Your task to perform on an android device: add a contact Image 0: 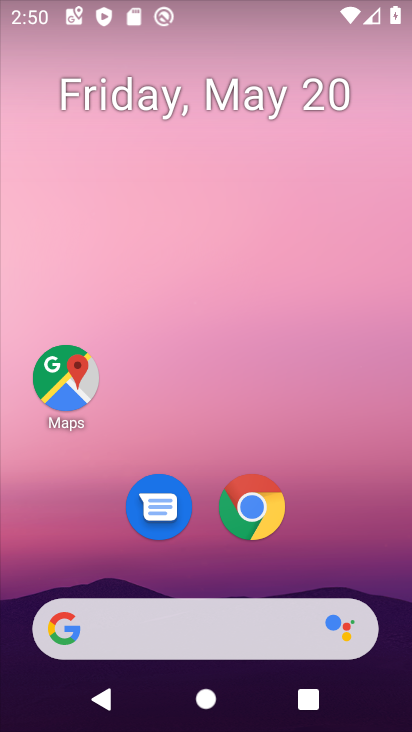
Step 0: drag from (227, 725) to (267, 165)
Your task to perform on an android device: add a contact Image 1: 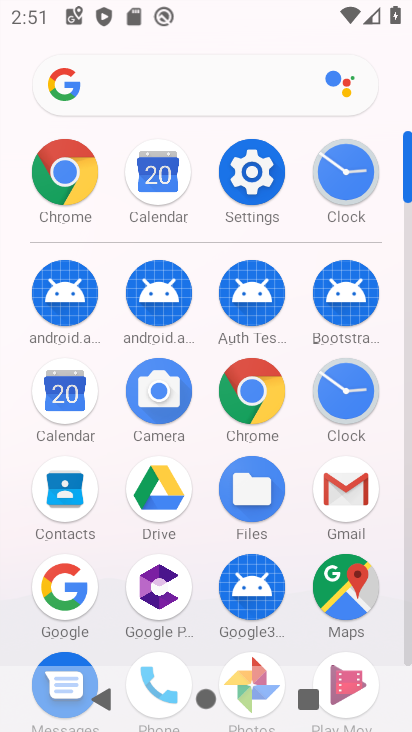
Step 1: click (68, 498)
Your task to perform on an android device: add a contact Image 2: 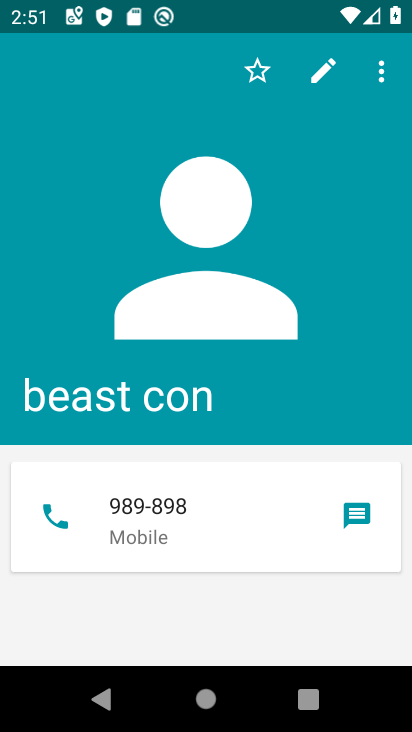
Step 2: press back button
Your task to perform on an android device: add a contact Image 3: 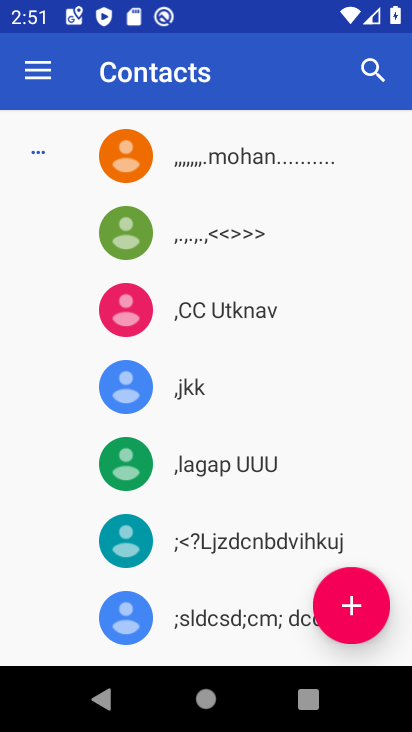
Step 3: click (364, 599)
Your task to perform on an android device: add a contact Image 4: 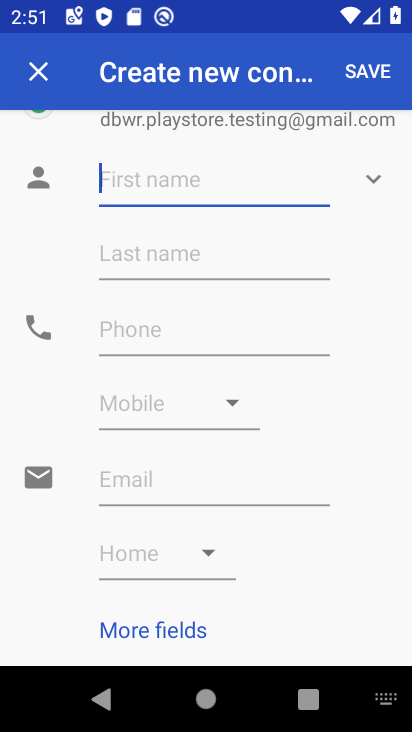
Step 4: type "mmm"
Your task to perform on an android device: add a contact Image 5: 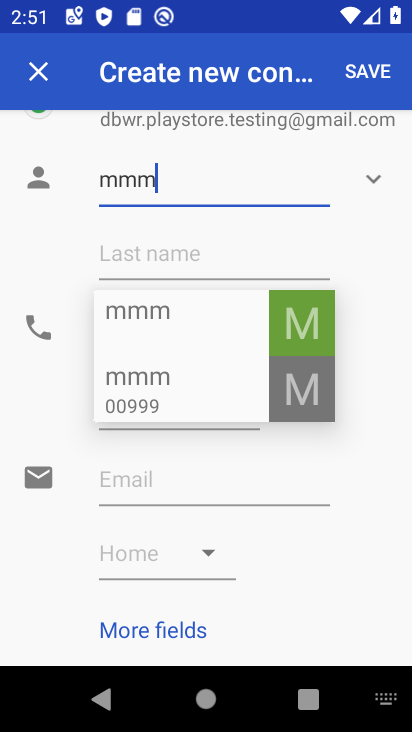
Step 5: type "ccccc"
Your task to perform on an android device: add a contact Image 6: 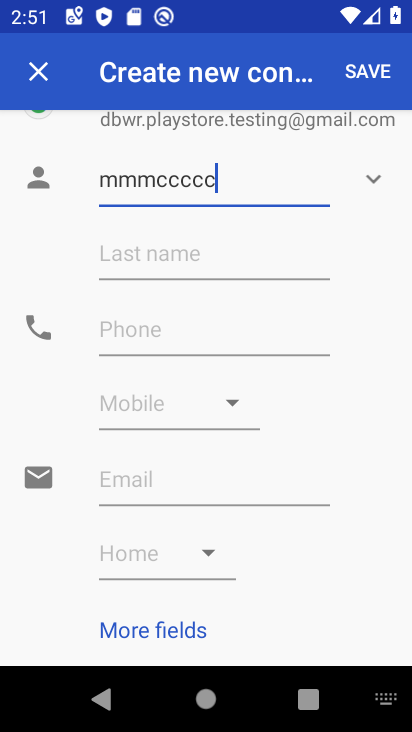
Step 6: click (174, 324)
Your task to perform on an android device: add a contact Image 7: 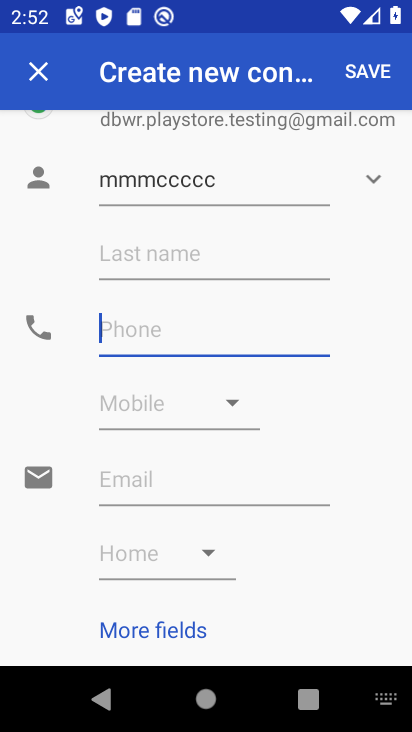
Step 7: type "9999765"
Your task to perform on an android device: add a contact Image 8: 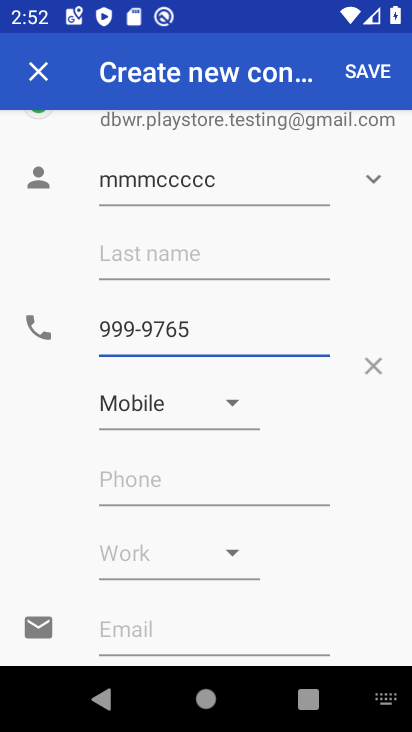
Step 8: click (371, 72)
Your task to perform on an android device: add a contact Image 9: 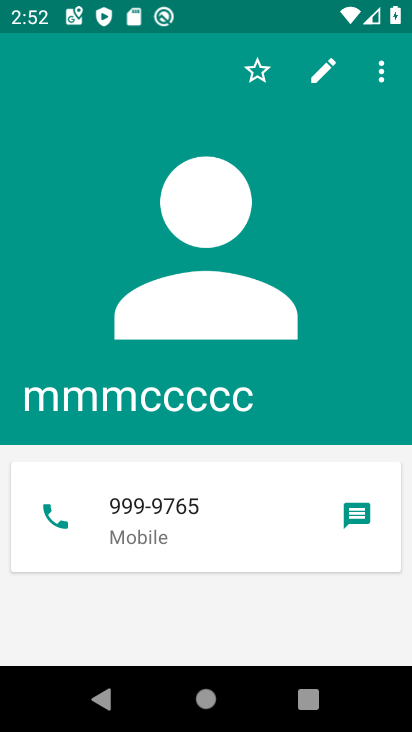
Step 9: task complete